Your task to perform on an android device: turn on the 12-hour format for clock Image 0: 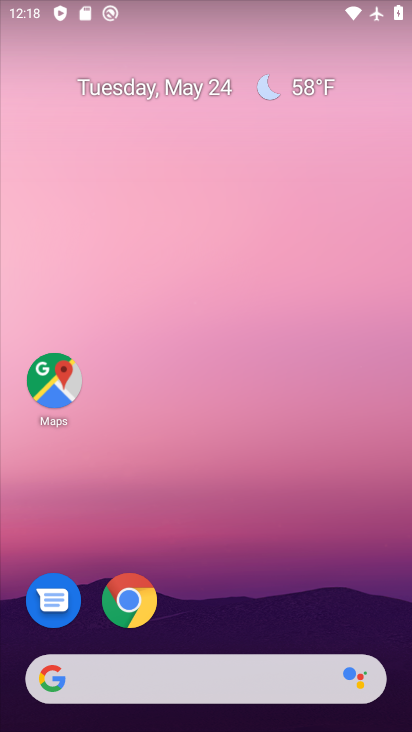
Step 0: drag from (317, 516) to (146, 4)
Your task to perform on an android device: turn on the 12-hour format for clock Image 1: 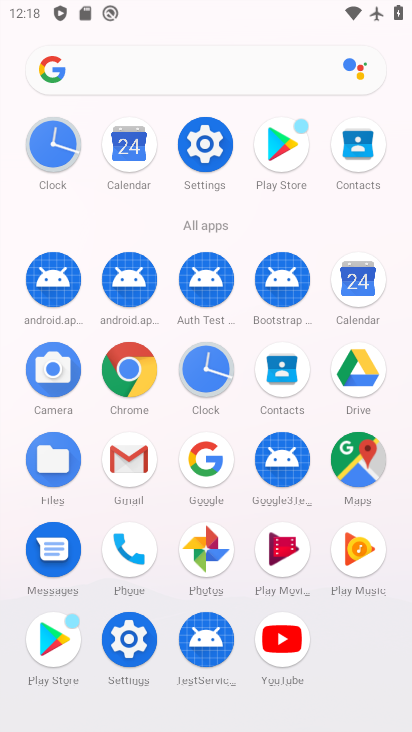
Step 1: click (196, 153)
Your task to perform on an android device: turn on the 12-hour format for clock Image 2: 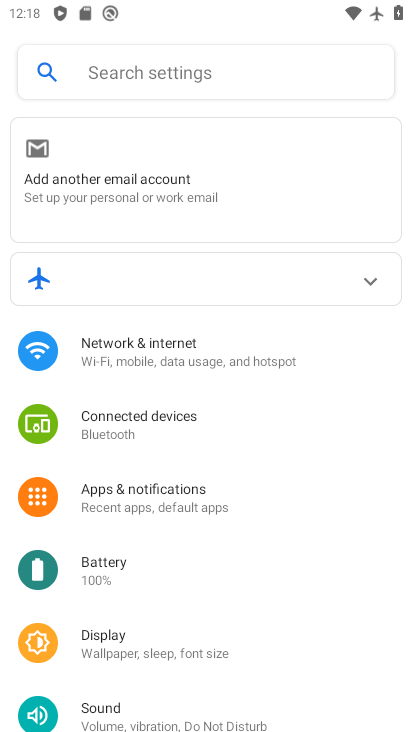
Step 2: press home button
Your task to perform on an android device: turn on the 12-hour format for clock Image 3: 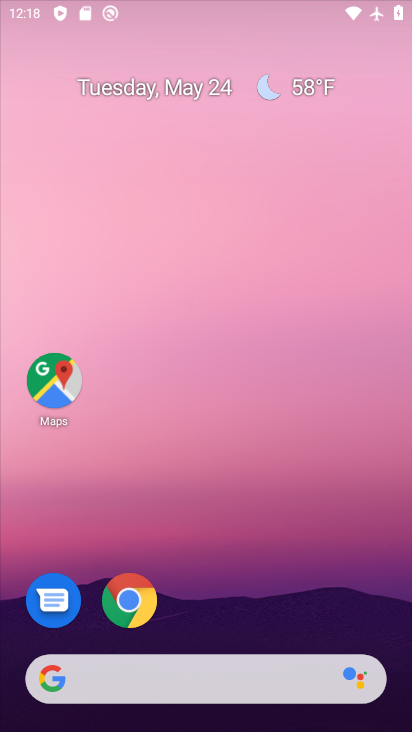
Step 3: drag from (289, 453) to (175, 44)
Your task to perform on an android device: turn on the 12-hour format for clock Image 4: 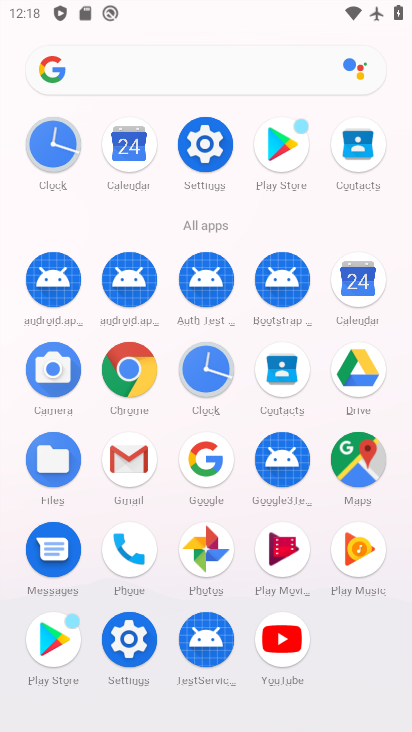
Step 4: click (57, 160)
Your task to perform on an android device: turn on the 12-hour format for clock Image 5: 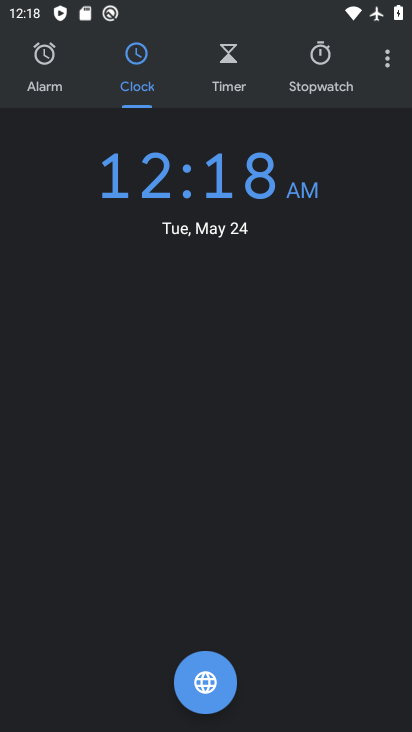
Step 5: click (389, 62)
Your task to perform on an android device: turn on the 12-hour format for clock Image 6: 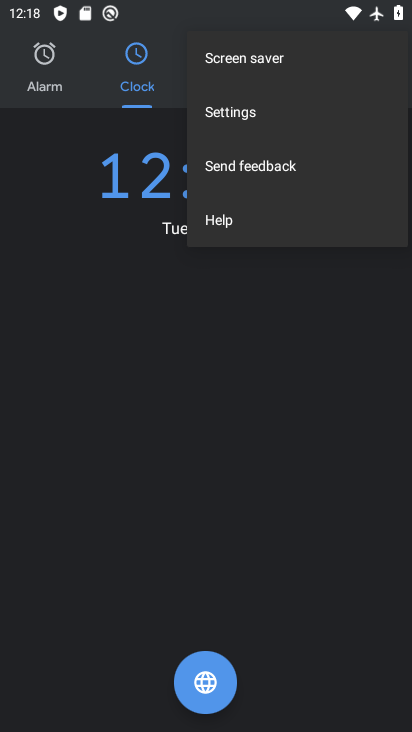
Step 6: click (285, 117)
Your task to perform on an android device: turn on the 12-hour format for clock Image 7: 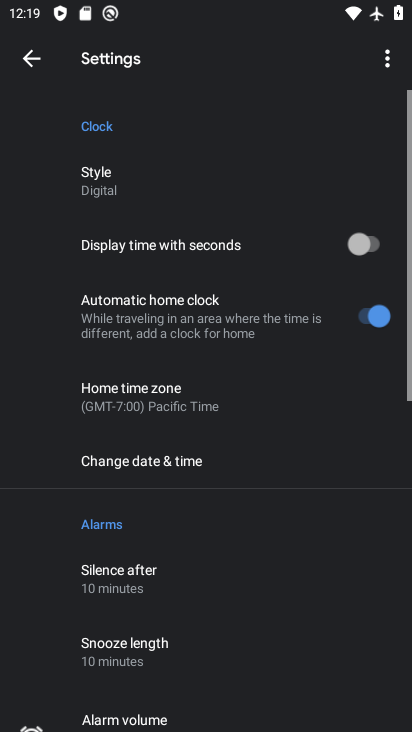
Step 7: drag from (270, 609) to (268, 220)
Your task to perform on an android device: turn on the 12-hour format for clock Image 8: 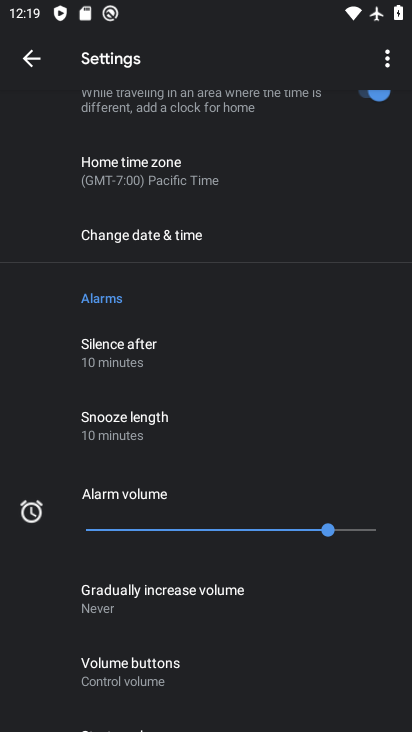
Step 8: click (199, 231)
Your task to perform on an android device: turn on the 12-hour format for clock Image 9: 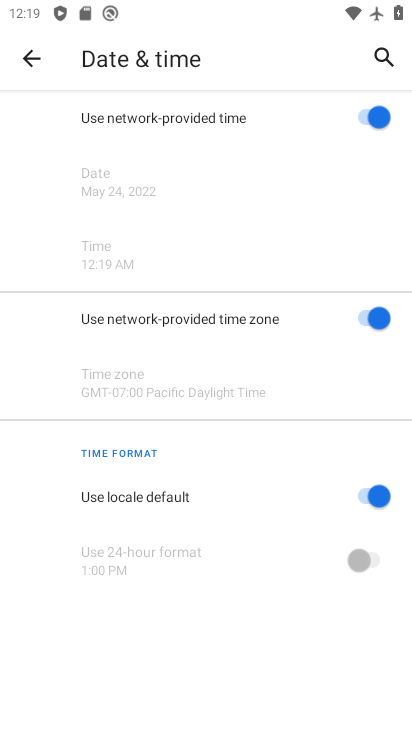
Step 9: task complete